Your task to perform on an android device: turn notification dots off Image 0: 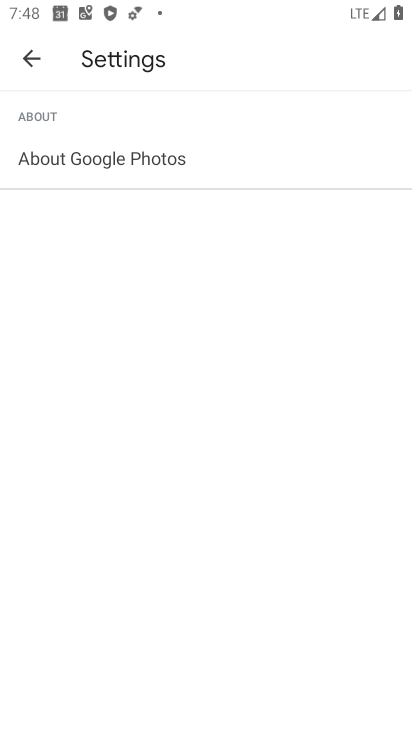
Step 0: press home button
Your task to perform on an android device: turn notification dots off Image 1: 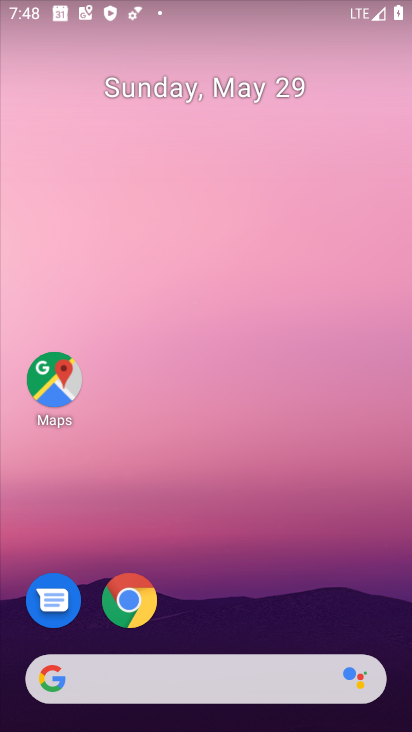
Step 1: drag from (242, 635) to (148, 27)
Your task to perform on an android device: turn notification dots off Image 2: 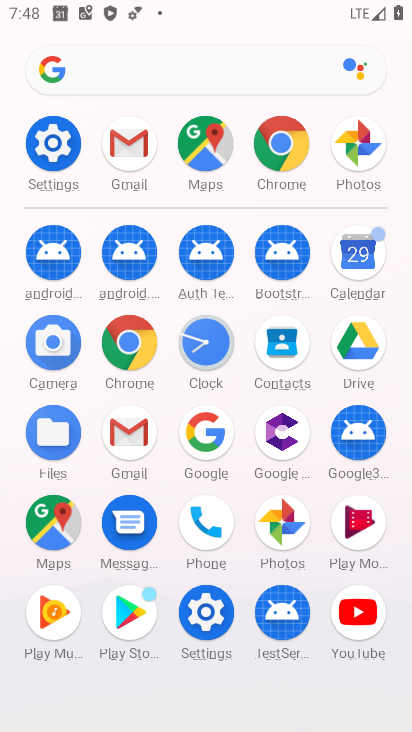
Step 2: click (59, 151)
Your task to perform on an android device: turn notification dots off Image 3: 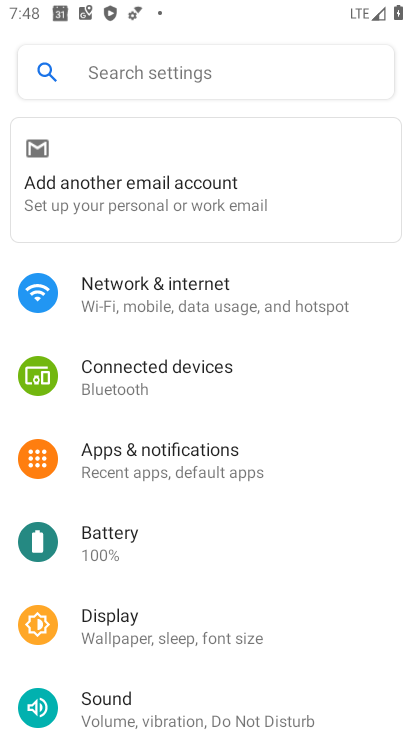
Step 3: click (197, 456)
Your task to perform on an android device: turn notification dots off Image 4: 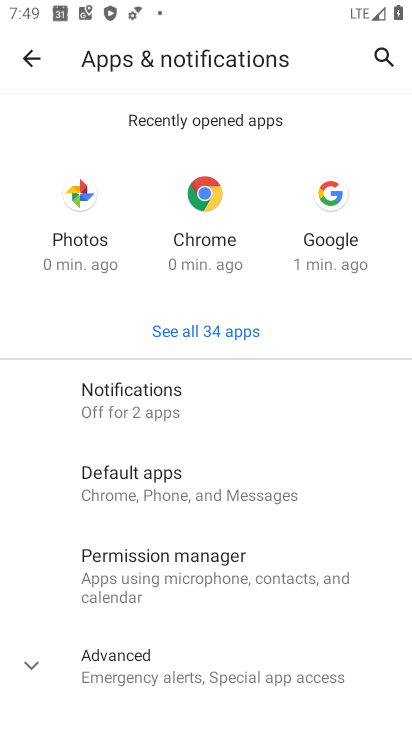
Step 4: drag from (197, 632) to (217, 428)
Your task to perform on an android device: turn notification dots off Image 5: 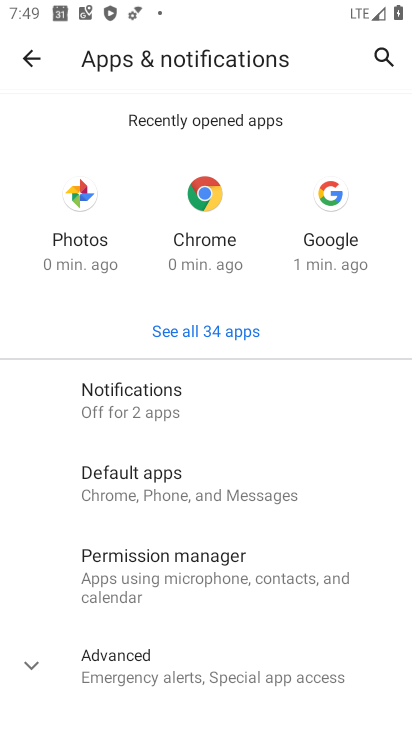
Step 5: click (153, 391)
Your task to perform on an android device: turn notification dots off Image 6: 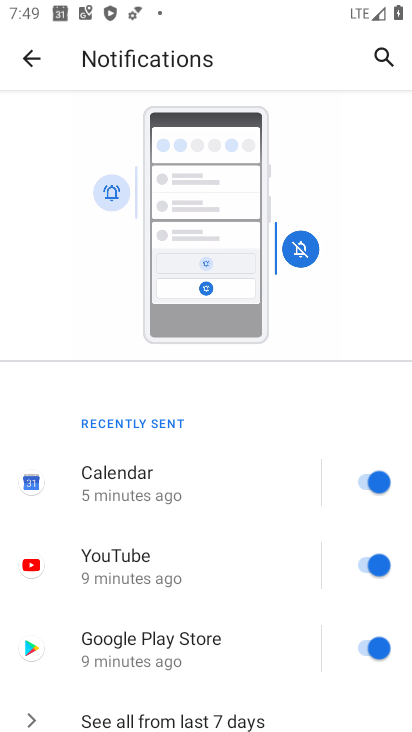
Step 6: drag from (169, 635) to (248, 0)
Your task to perform on an android device: turn notification dots off Image 7: 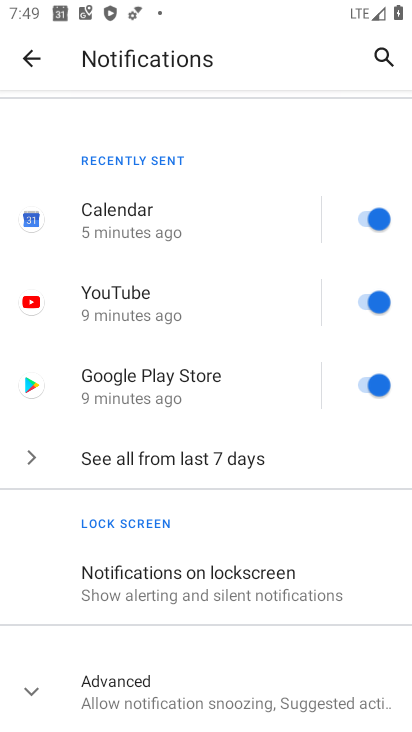
Step 7: click (162, 702)
Your task to perform on an android device: turn notification dots off Image 8: 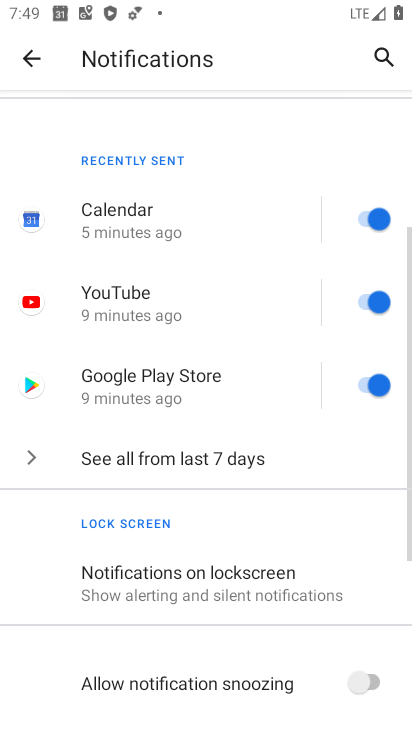
Step 8: drag from (238, 656) to (313, 55)
Your task to perform on an android device: turn notification dots off Image 9: 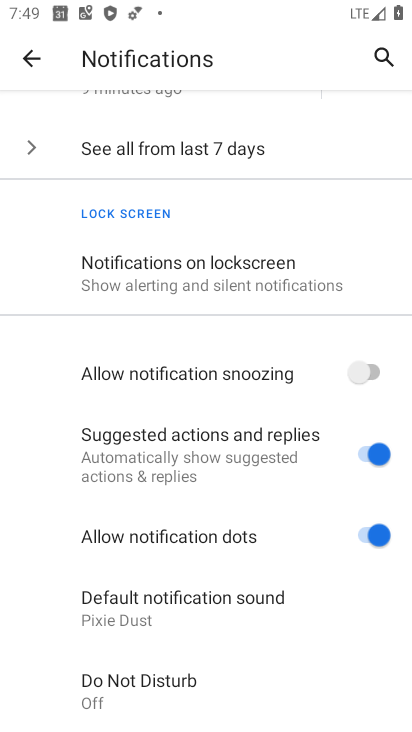
Step 9: click (348, 532)
Your task to perform on an android device: turn notification dots off Image 10: 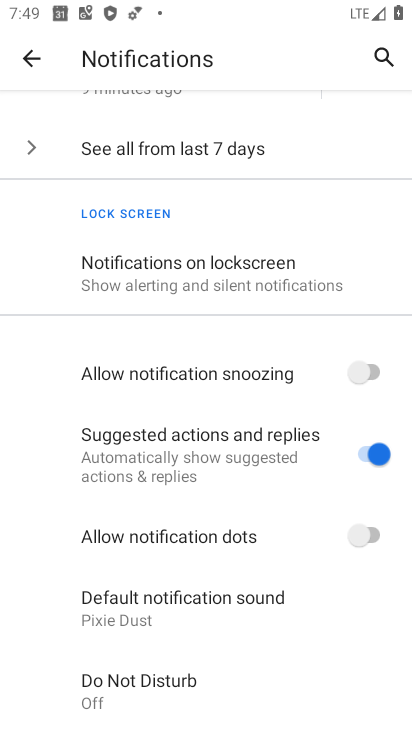
Step 10: task complete